Your task to perform on an android device: all mails in gmail Image 0: 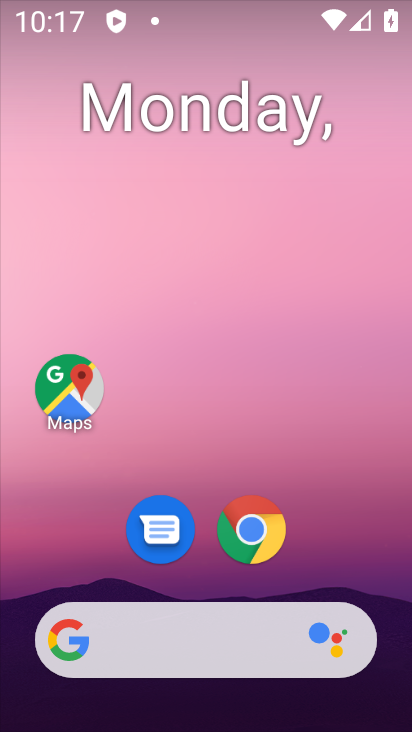
Step 0: drag from (323, 519) to (260, 147)
Your task to perform on an android device: all mails in gmail Image 1: 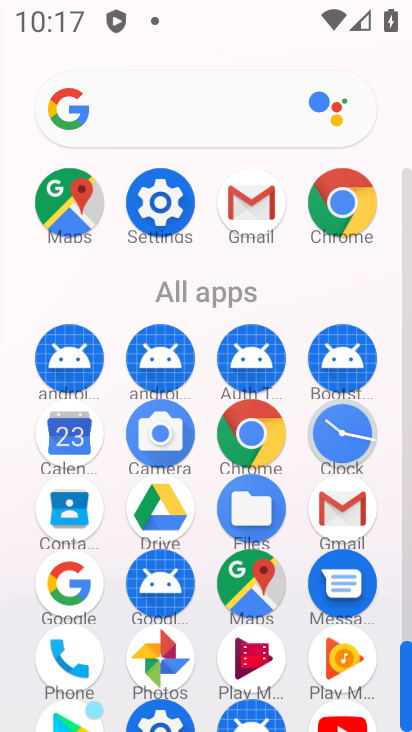
Step 1: click (254, 193)
Your task to perform on an android device: all mails in gmail Image 2: 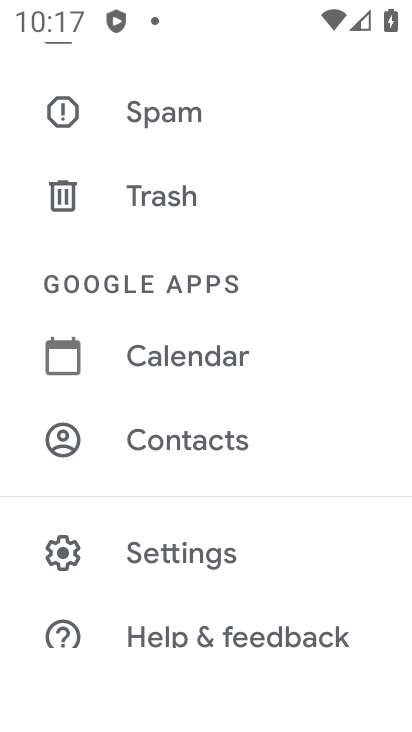
Step 2: drag from (313, 162) to (337, 436)
Your task to perform on an android device: all mails in gmail Image 3: 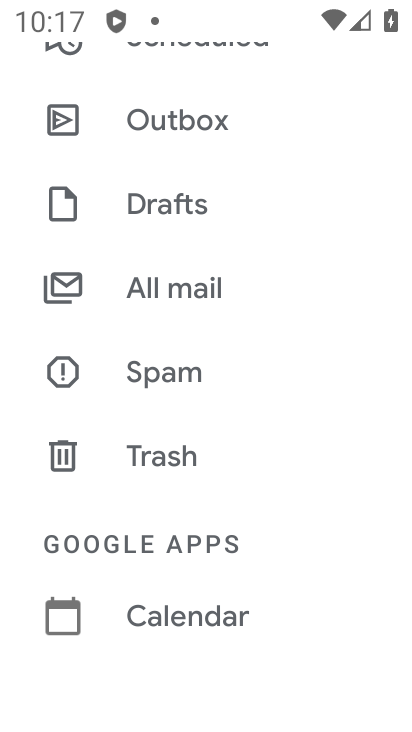
Step 3: click (177, 284)
Your task to perform on an android device: all mails in gmail Image 4: 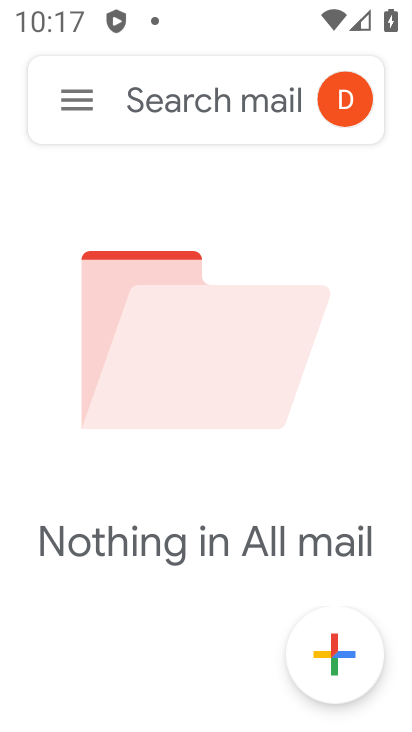
Step 4: task complete